Your task to perform on an android device: Clear the cart on amazon. Search for razer blackwidow on amazon, select the first entry, add it to the cart, then select checkout. Image 0: 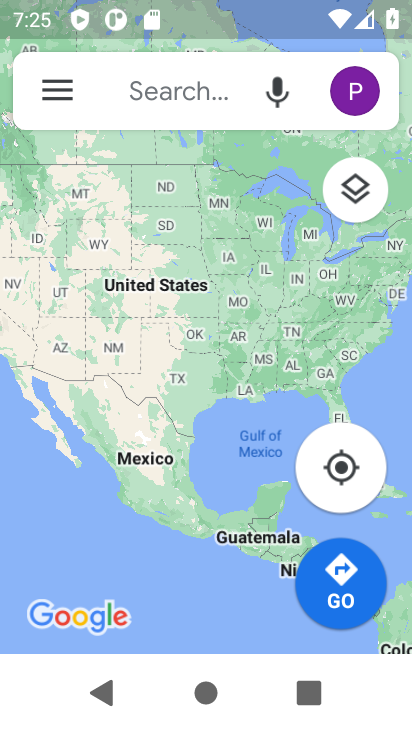
Step 0: press home button
Your task to perform on an android device: Clear the cart on amazon. Search for razer blackwidow on amazon, select the first entry, add it to the cart, then select checkout. Image 1: 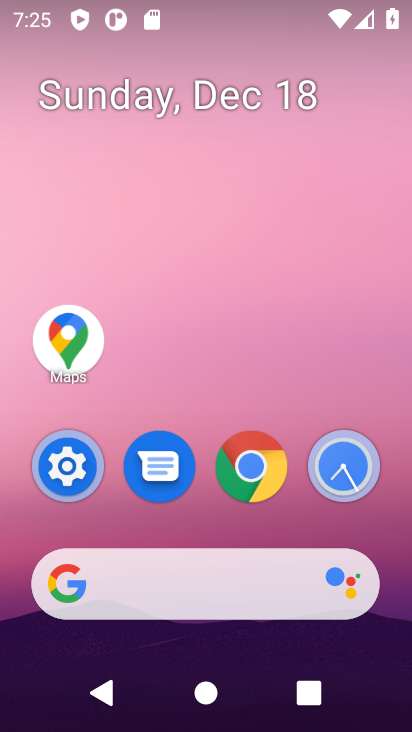
Step 1: click (244, 476)
Your task to perform on an android device: Clear the cart on amazon. Search for razer blackwidow on amazon, select the first entry, add it to the cart, then select checkout. Image 2: 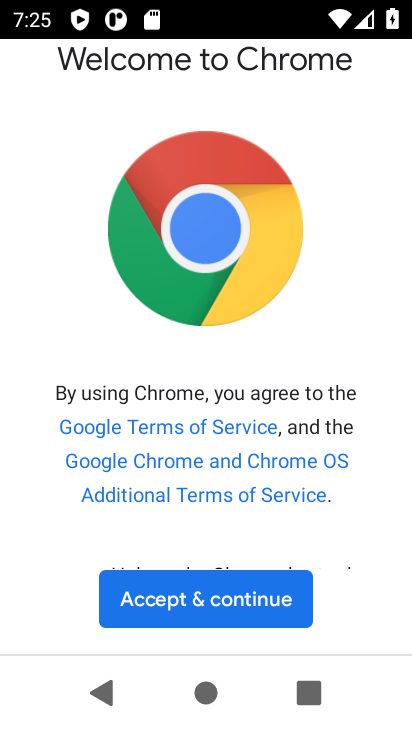
Step 2: click (203, 593)
Your task to perform on an android device: Clear the cart on amazon. Search for razer blackwidow on amazon, select the first entry, add it to the cart, then select checkout. Image 3: 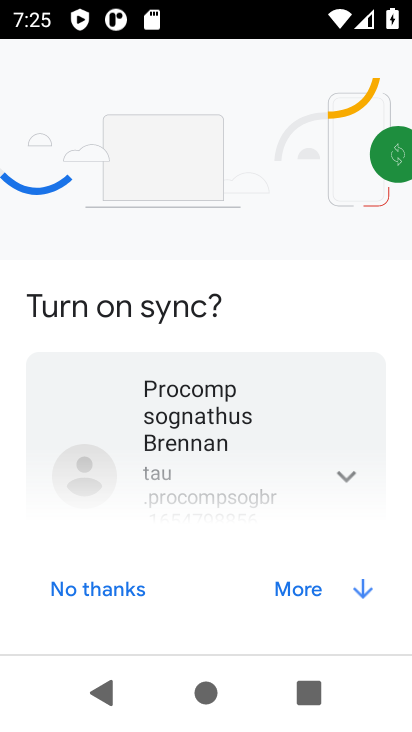
Step 3: click (104, 588)
Your task to perform on an android device: Clear the cart on amazon. Search for razer blackwidow on amazon, select the first entry, add it to the cart, then select checkout. Image 4: 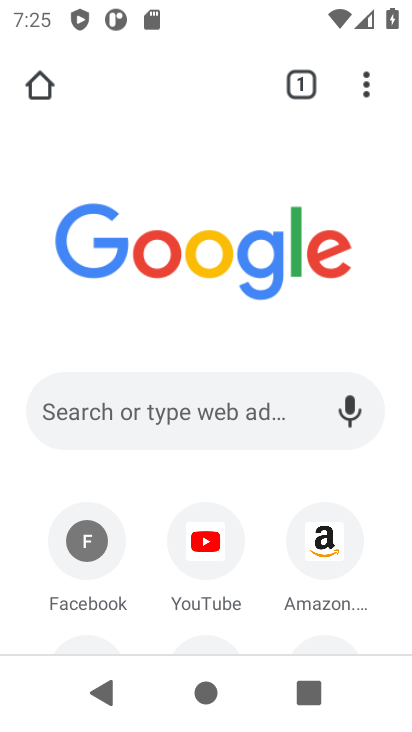
Step 4: click (324, 543)
Your task to perform on an android device: Clear the cart on amazon. Search for razer blackwidow on amazon, select the first entry, add it to the cart, then select checkout. Image 5: 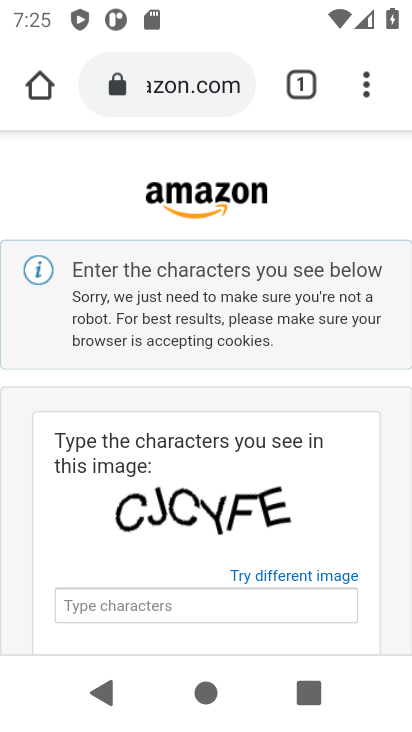
Step 5: click (175, 604)
Your task to perform on an android device: Clear the cart on amazon. Search for razer blackwidow on amazon, select the first entry, add it to the cart, then select checkout. Image 6: 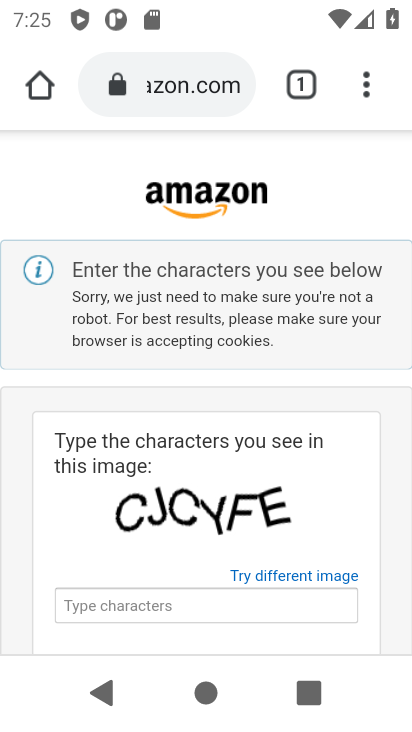
Step 6: click (175, 604)
Your task to perform on an android device: Clear the cart on amazon. Search for razer blackwidow on amazon, select the first entry, add it to the cart, then select checkout. Image 7: 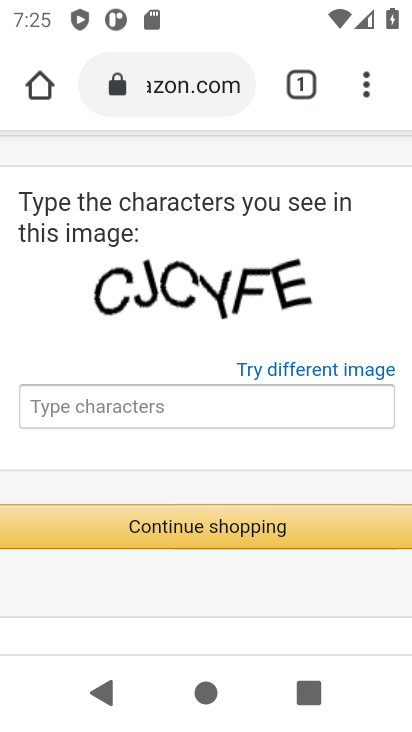
Step 7: type "CJCYFE"
Your task to perform on an android device: Clear the cart on amazon. Search for razer blackwidow on amazon, select the first entry, add it to the cart, then select checkout. Image 8: 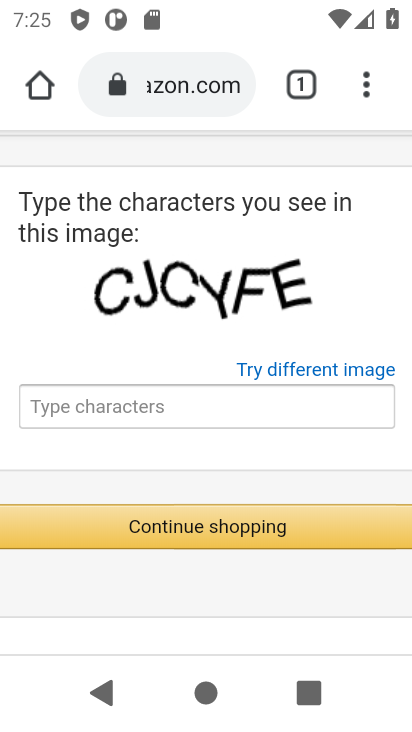
Step 8: click (224, 411)
Your task to perform on an android device: Clear the cart on amazon. Search for razer blackwidow on amazon, select the first entry, add it to the cart, then select checkout. Image 9: 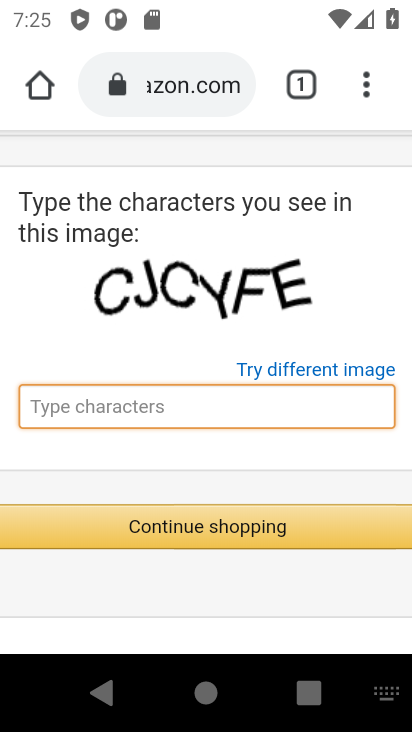
Step 9: type "CJCYFE"
Your task to perform on an android device: Clear the cart on amazon. Search for razer blackwidow on amazon, select the first entry, add it to the cart, then select checkout. Image 10: 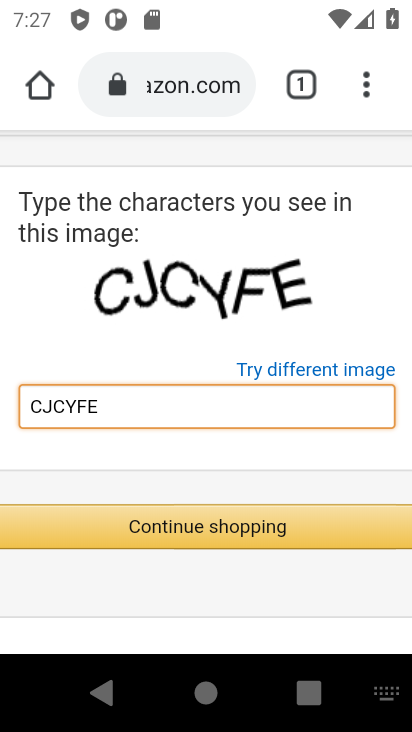
Step 10: click (181, 525)
Your task to perform on an android device: Clear the cart on amazon. Search for razer blackwidow on amazon, select the first entry, add it to the cart, then select checkout. Image 11: 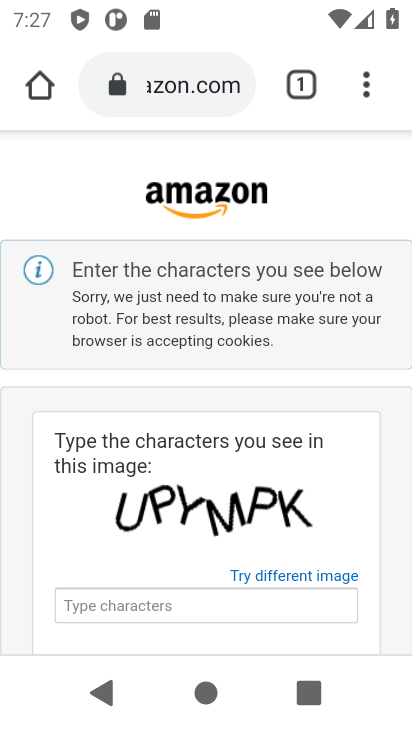
Step 11: click (232, 599)
Your task to perform on an android device: Clear the cart on amazon. Search for razer blackwidow on amazon, select the first entry, add it to the cart, then select checkout. Image 12: 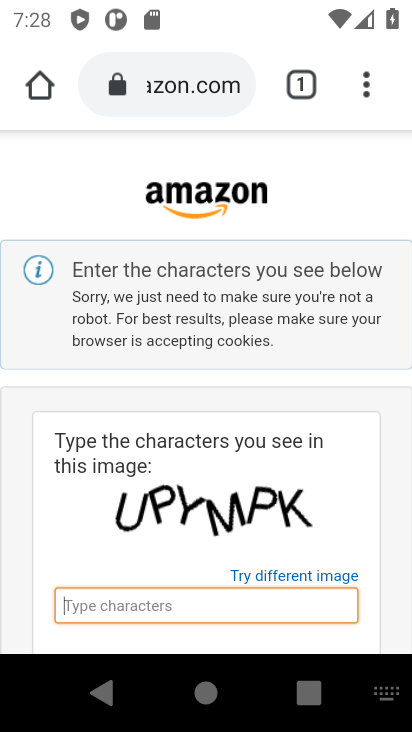
Step 12: task complete